Your task to perform on an android device: check the backup settings in the google photos Image 0: 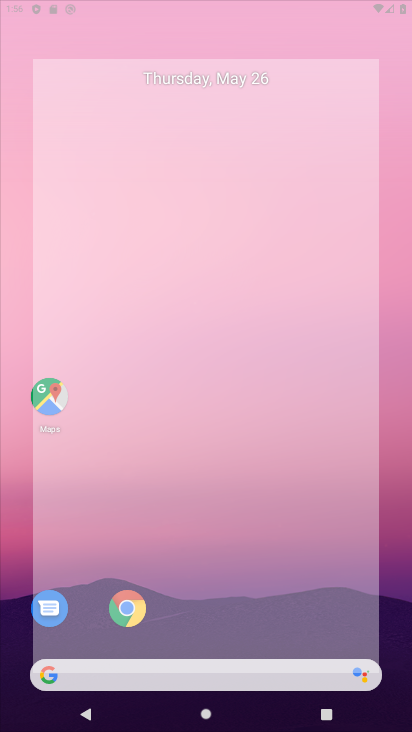
Step 0: drag from (316, 416) to (318, 41)
Your task to perform on an android device: check the backup settings in the google photos Image 1: 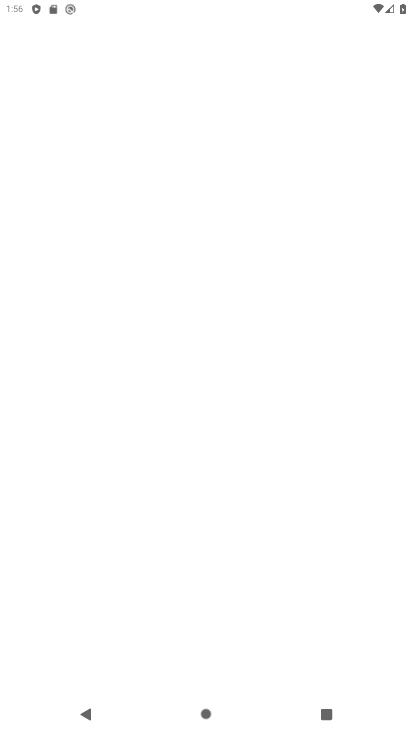
Step 1: press home button
Your task to perform on an android device: check the backup settings in the google photos Image 2: 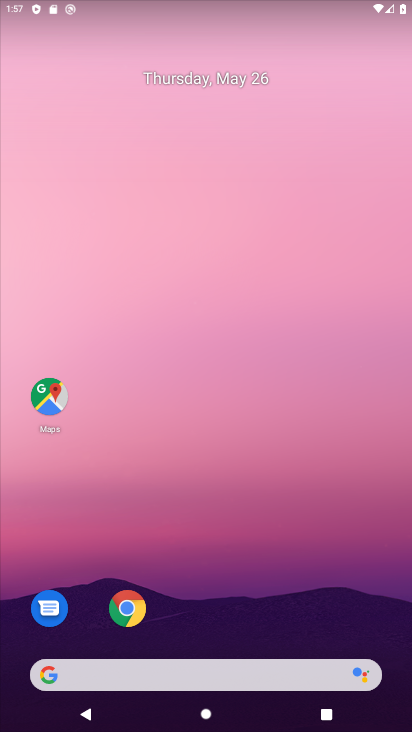
Step 2: drag from (263, 581) to (345, 17)
Your task to perform on an android device: check the backup settings in the google photos Image 3: 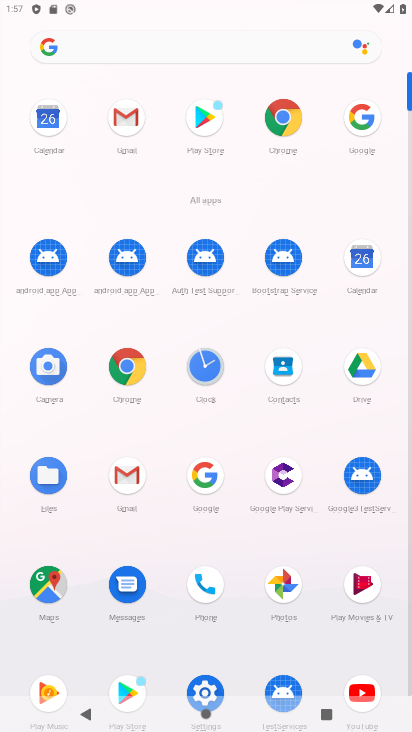
Step 3: click (287, 576)
Your task to perform on an android device: check the backup settings in the google photos Image 4: 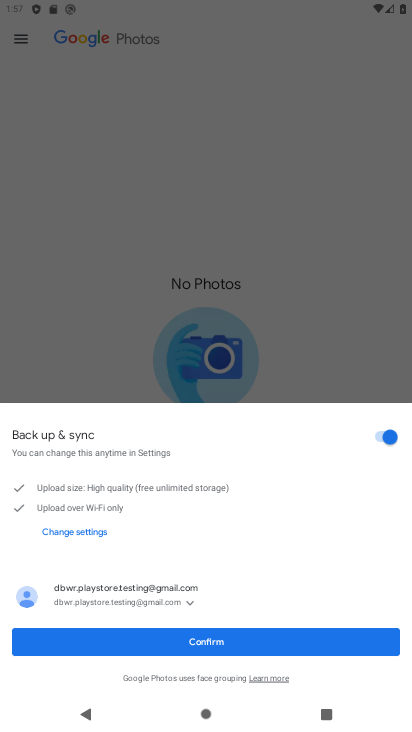
Step 4: click (220, 647)
Your task to perform on an android device: check the backup settings in the google photos Image 5: 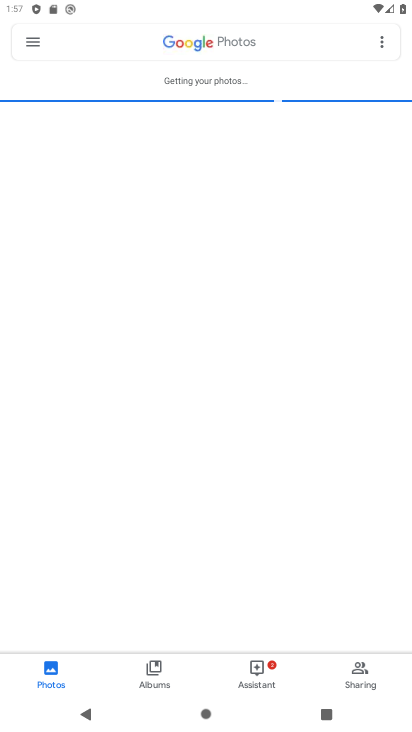
Step 5: click (37, 44)
Your task to perform on an android device: check the backup settings in the google photos Image 6: 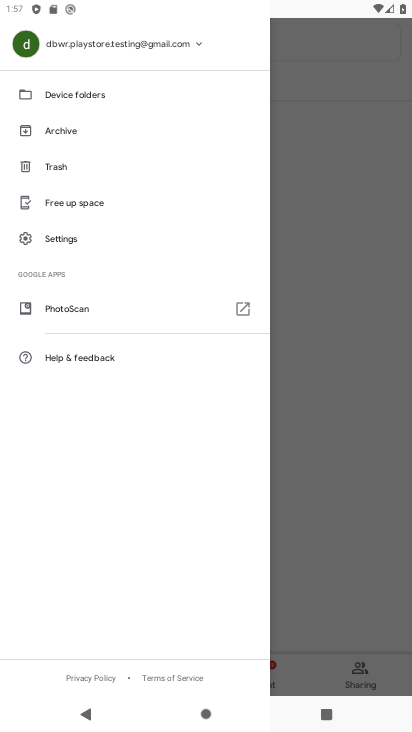
Step 6: click (51, 238)
Your task to perform on an android device: check the backup settings in the google photos Image 7: 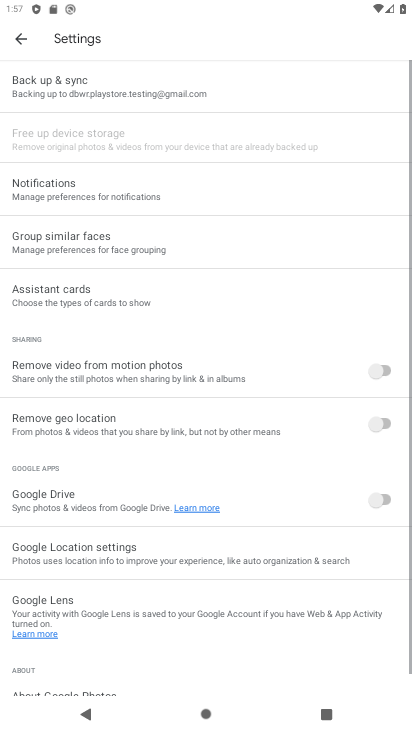
Step 7: click (103, 91)
Your task to perform on an android device: check the backup settings in the google photos Image 8: 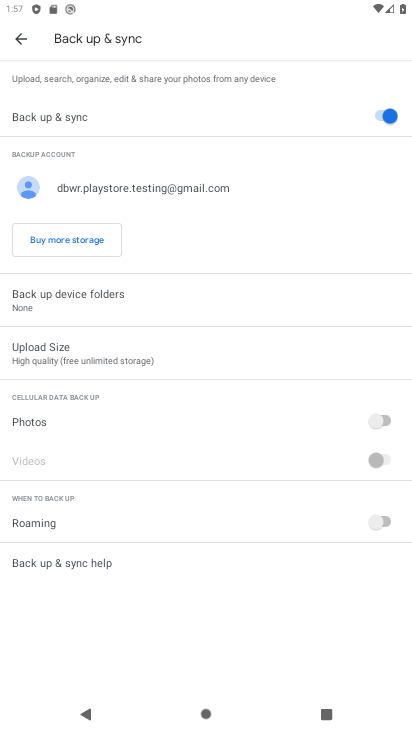
Step 8: task complete